Your task to perform on an android device: What's the weather going to be this weekend? Image 0: 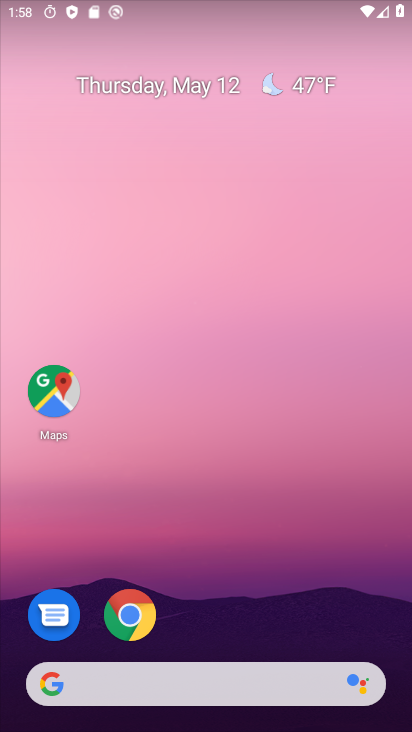
Step 0: drag from (212, 615) to (227, 236)
Your task to perform on an android device: What's the weather going to be this weekend? Image 1: 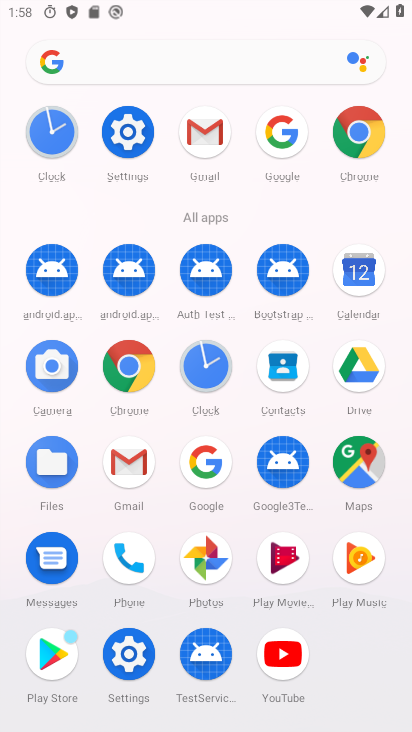
Step 1: click (208, 461)
Your task to perform on an android device: What's the weather going to be this weekend? Image 2: 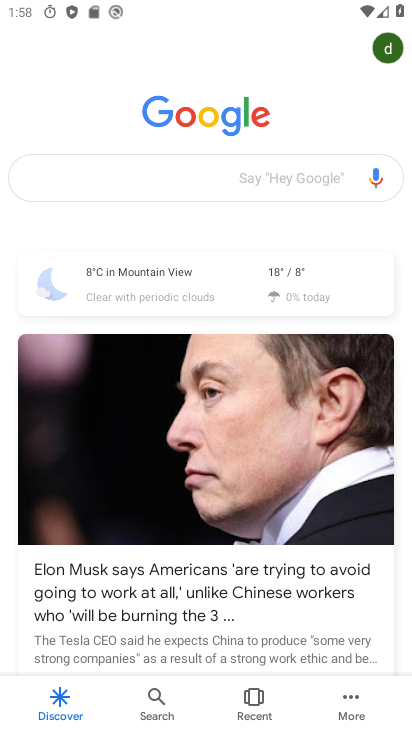
Step 2: type "we"
Your task to perform on an android device: What's the weather going to be this weekend? Image 3: 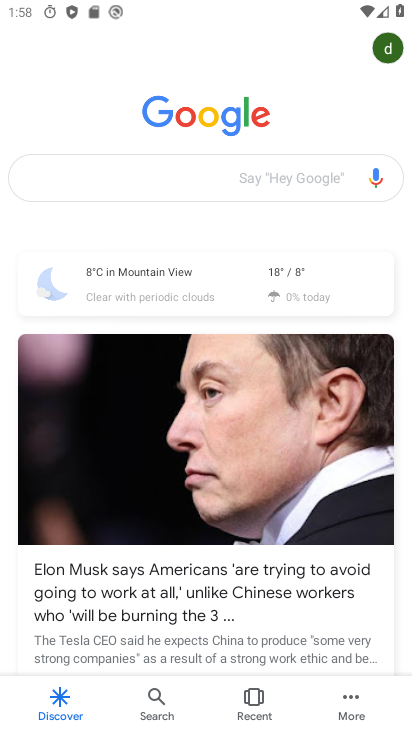
Step 3: click (229, 178)
Your task to perform on an android device: What's the weather going to be this weekend? Image 4: 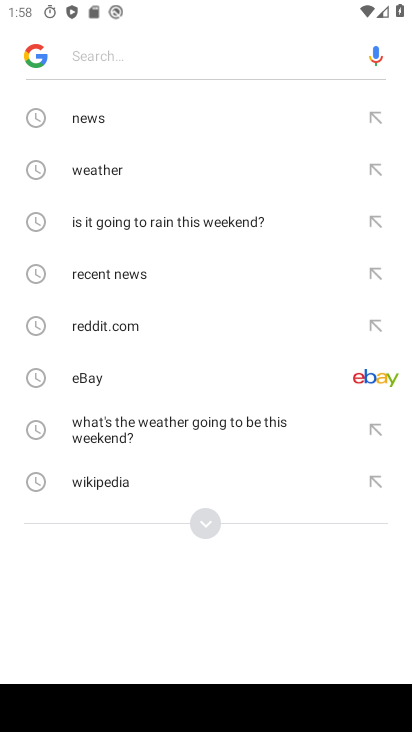
Step 4: type "weather going to be this weekend"
Your task to perform on an android device: What's the weather going to be this weekend? Image 5: 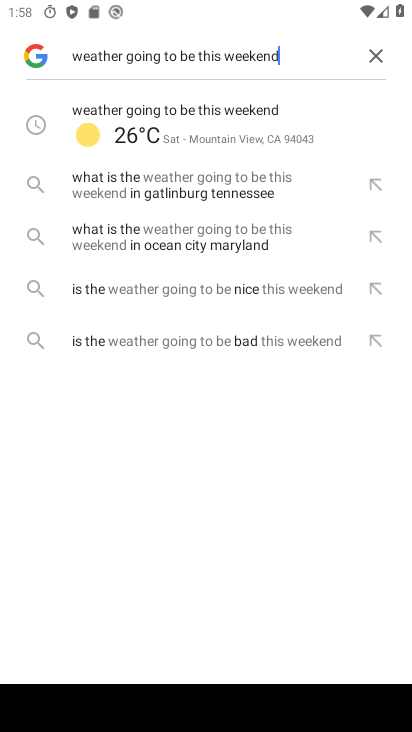
Step 5: click (173, 132)
Your task to perform on an android device: What's the weather going to be this weekend? Image 6: 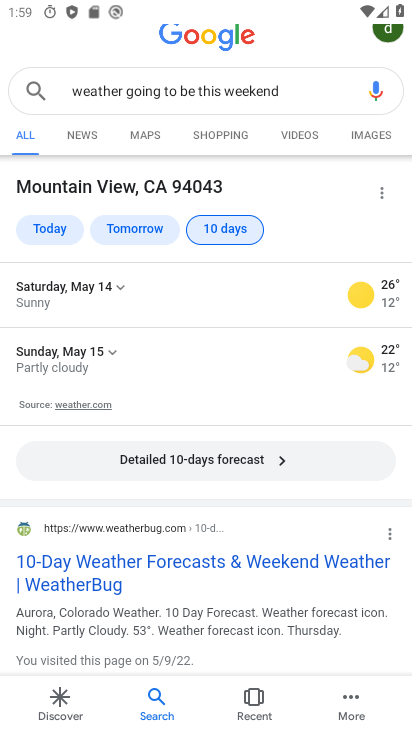
Step 6: task complete